Your task to perform on an android device: snooze an email in the gmail app Image 0: 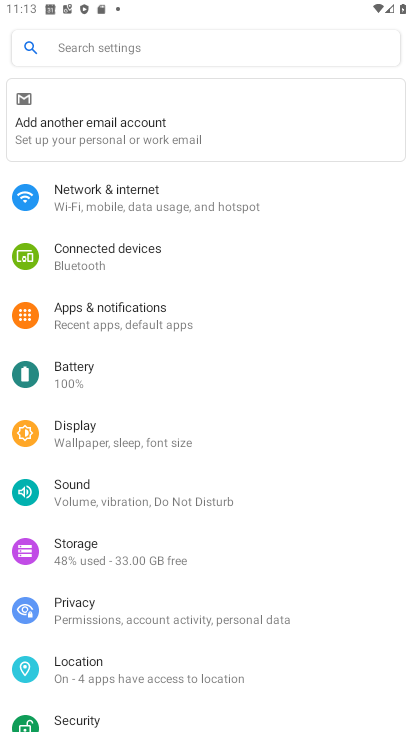
Step 0: press home button
Your task to perform on an android device: snooze an email in the gmail app Image 1: 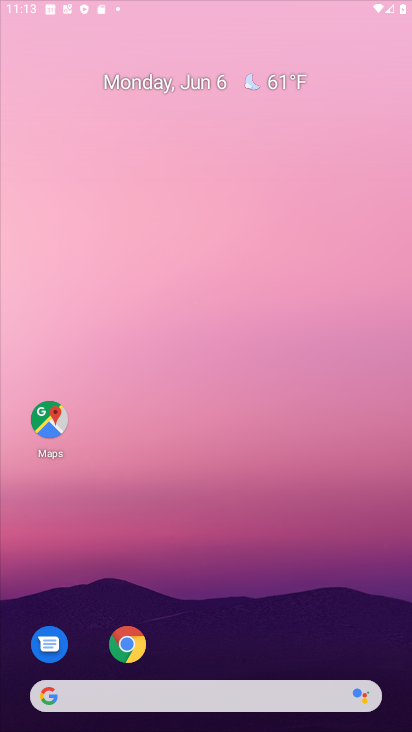
Step 1: drag from (188, 659) to (328, 129)
Your task to perform on an android device: snooze an email in the gmail app Image 2: 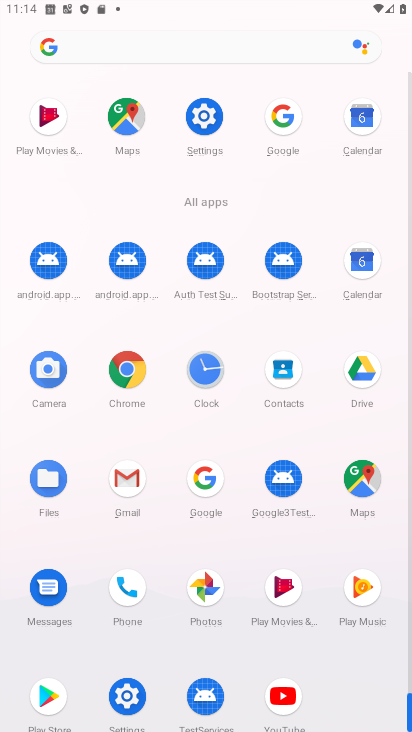
Step 2: click (136, 483)
Your task to perform on an android device: snooze an email in the gmail app Image 3: 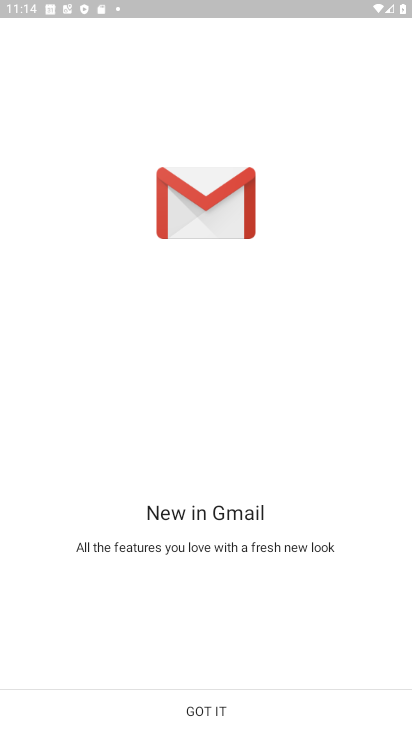
Step 3: click (375, 687)
Your task to perform on an android device: snooze an email in the gmail app Image 4: 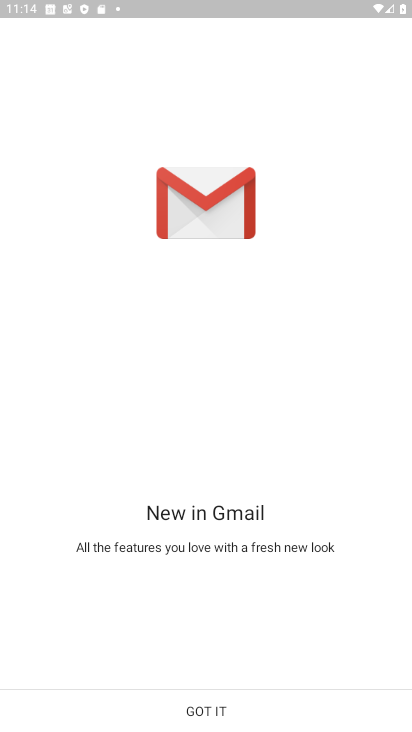
Step 4: click (294, 711)
Your task to perform on an android device: snooze an email in the gmail app Image 5: 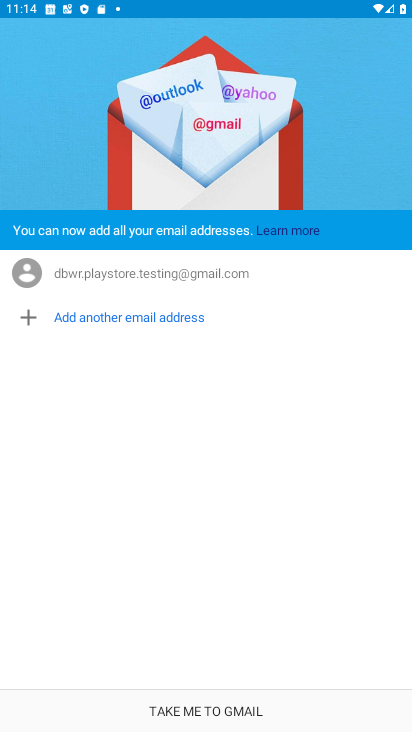
Step 5: click (287, 706)
Your task to perform on an android device: snooze an email in the gmail app Image 6: 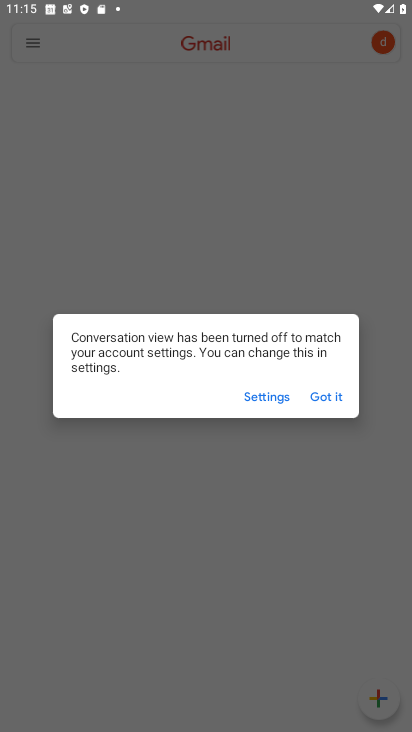
Step 6: click (315, 402)
Your task to perform on an android device: snooze an email in the gmail app Image 7: 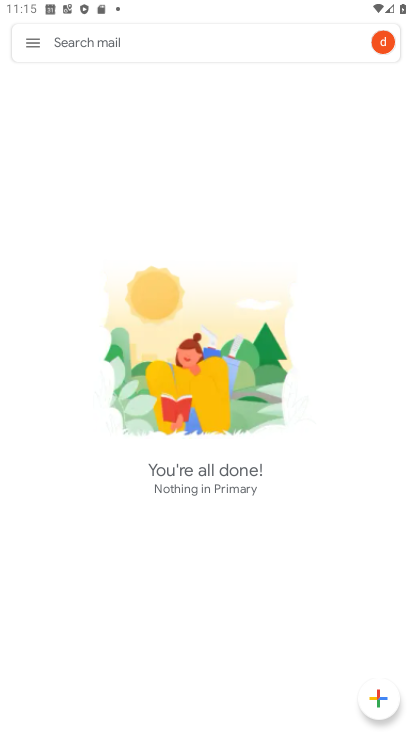
Step 7: click (37, 47)
Your task to perform on an android device: snooze an email in the gmail app Image 8: 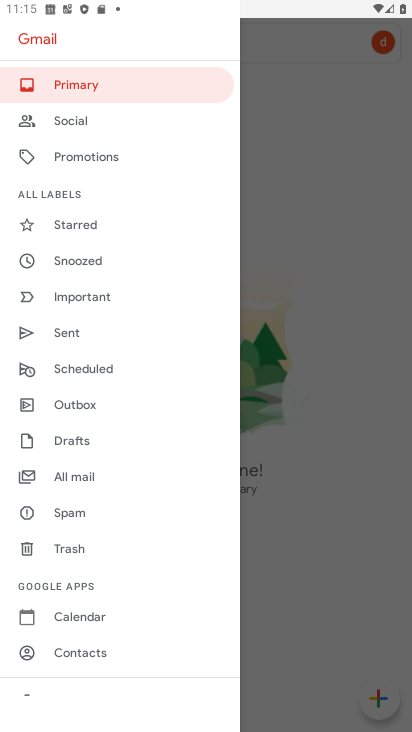
Step 8: click (85, 471)
Your task to perform on an android device: snooze an email in the gmail app Image 9: 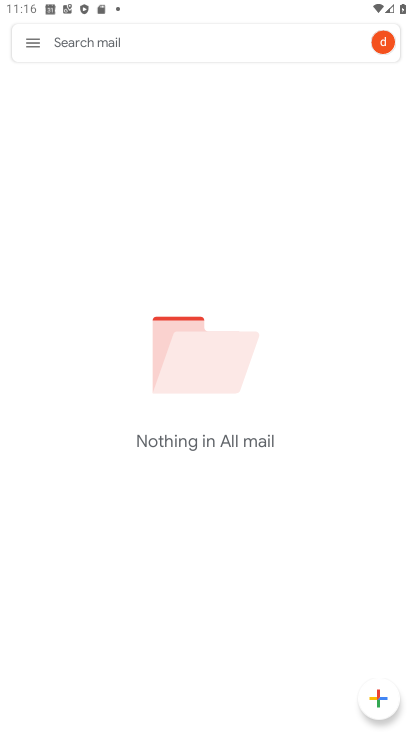
Step 9: task complete